Your task to perform on an android device: Open the phone app and click the voicemail tab. Image 0: 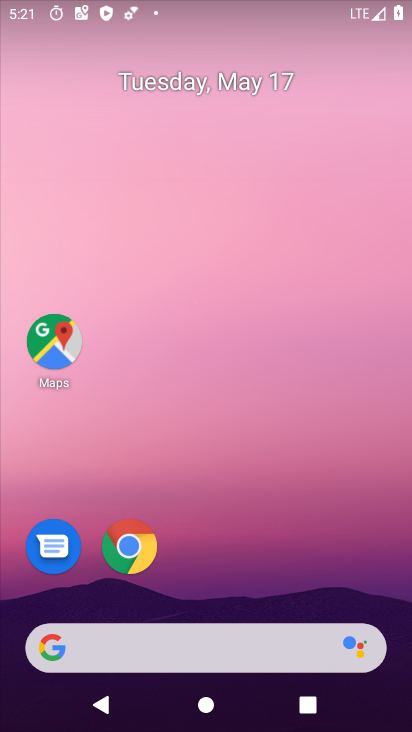
Step 0: drag from (215, 574) to (253, 125)
Your task to perform on an android device: Open the phone app and click the voicemail tab. Image 1: 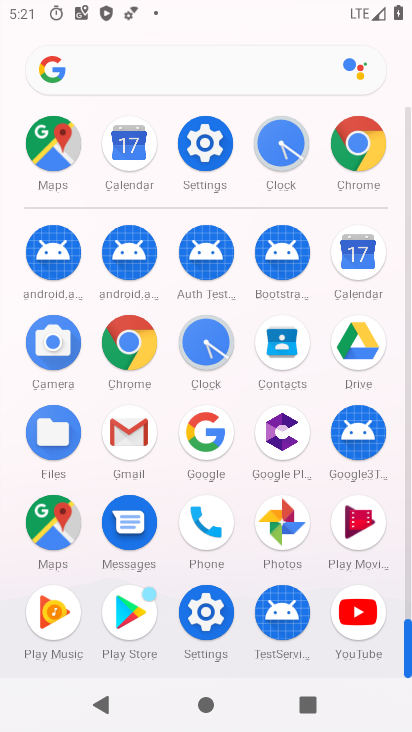
Step 1: click (195, 530)
Your task to perform on an android device: Open the phone app and click the voicemail tab. Image 2: 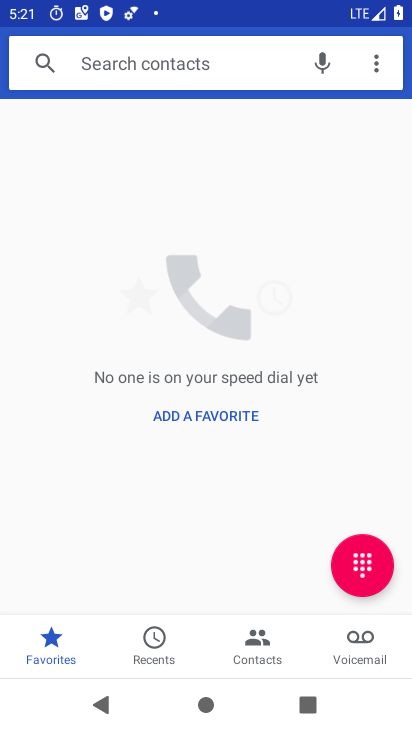
Step 2: click (348, 644)
Your task to perform on an android device: Open the phone app and click the voicemail tab. Image 3: 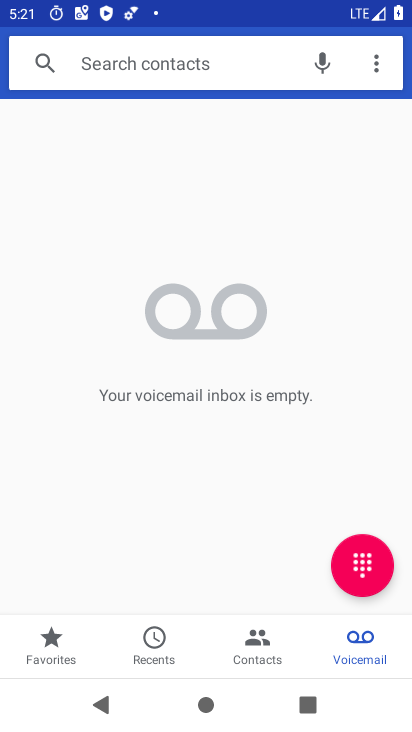
Step 3: task complete